Your task to perform on an android device: turn notification dots on Image 0: 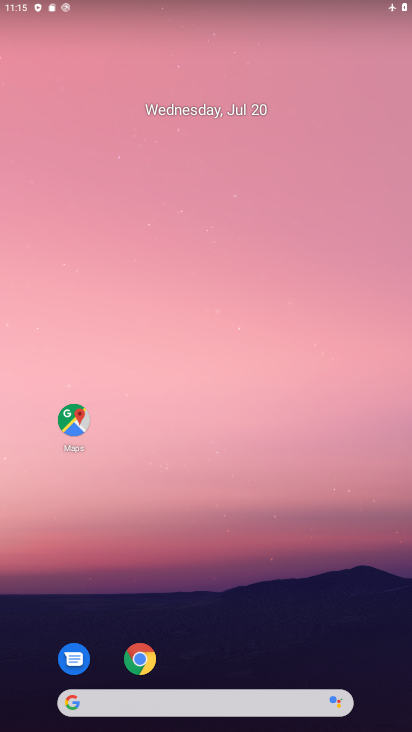
Step 0: drag from (243, 656) to (258, 370)
Your task to perform on an android device: turn notification dots on Image 1: 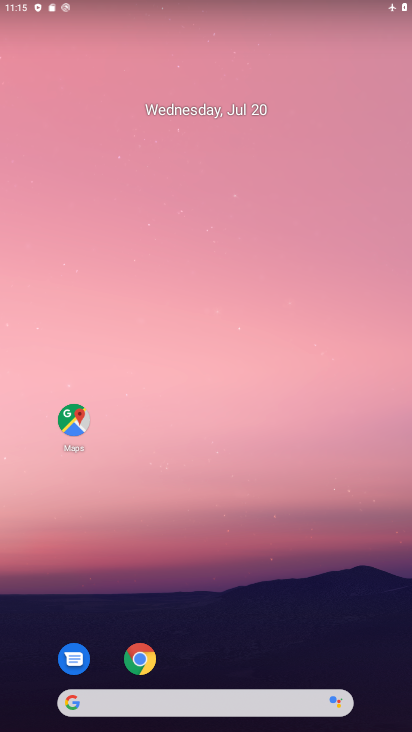
Step 1: drag from (211, 670) to (242, 19)
Your task to perform on an android device: turn notification dots on Image 2: 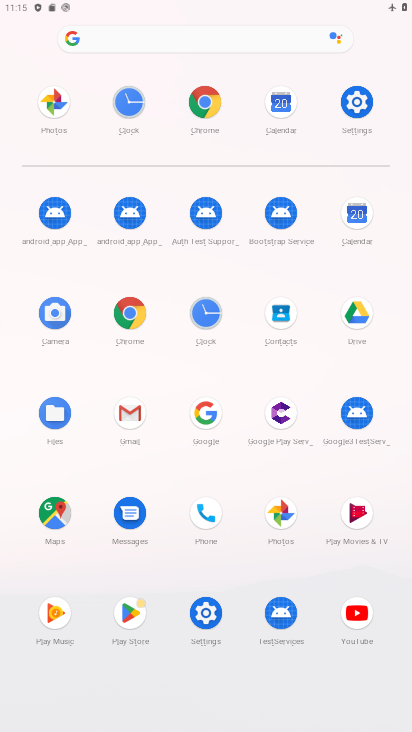
Step 2: click (211, 631)
Your task to perform on an android device: turn notification dots on Image 3: 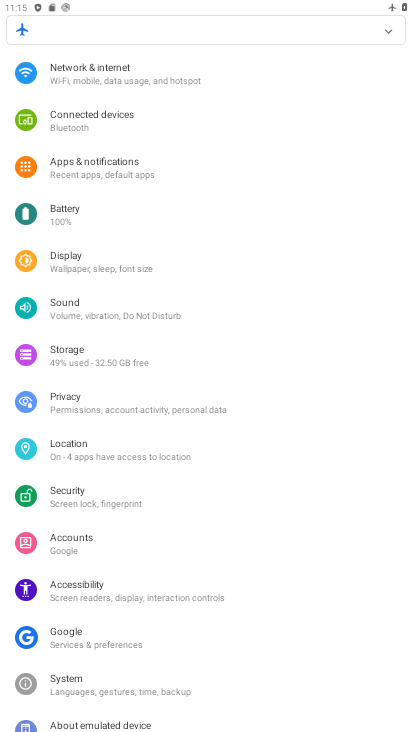
Step 3: click (109, 164)
Your task to perform on an android device: turn notification dots on Image 4: 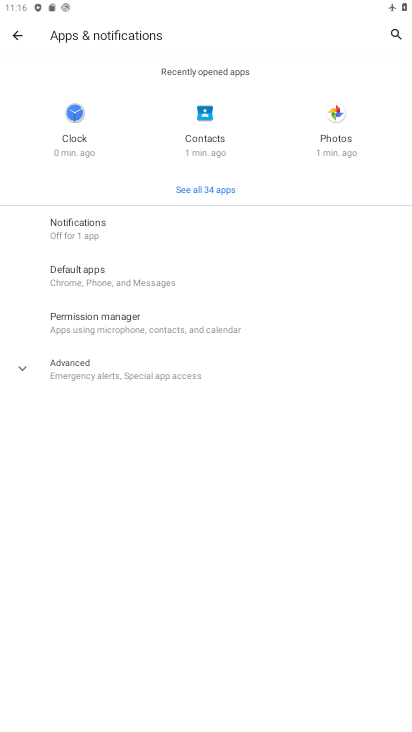
Step 4: click (91, 234)
Your task to perform on an android device: turn notification dots on Image 5: 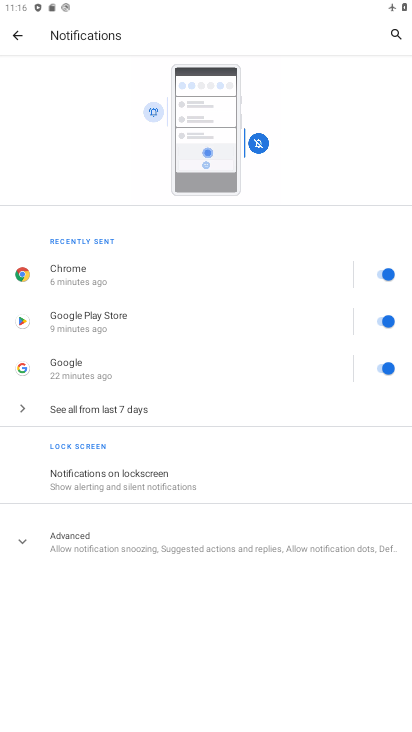
Step 5: click (135, 544)
Your task to perform on an android device: turn notification dots on Image 6: 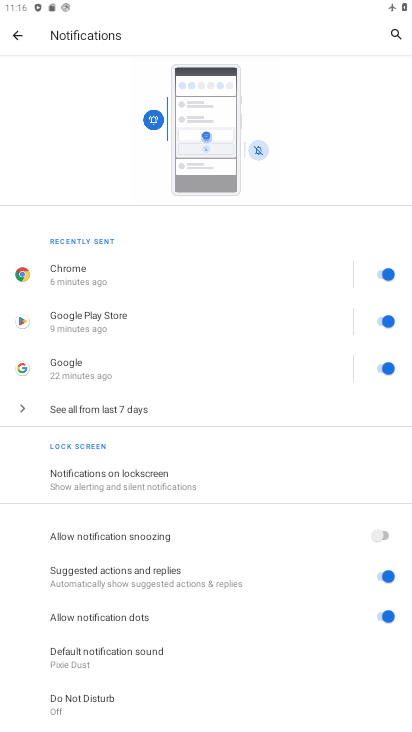
Step 6: task complete